Your task to perform on an android device: Open network settings Image 0: 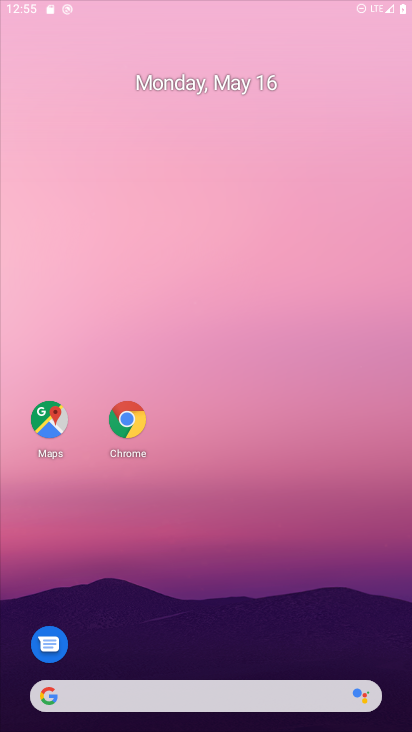
Step 0: click (221, 118)
Your task to perform on an android device: Open network settings Image 1: 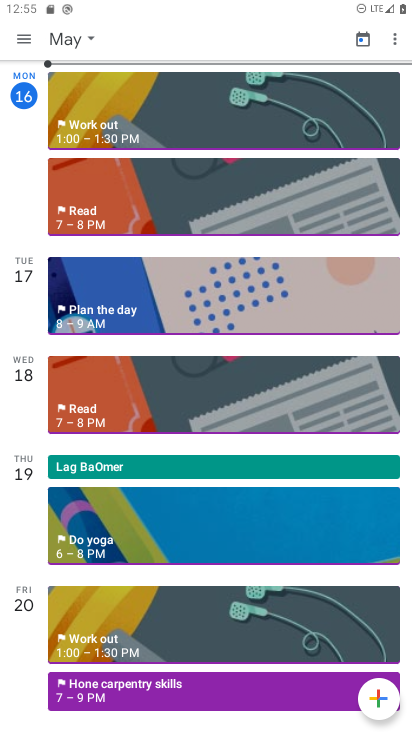
Step 1: press home button
Your task to perform on an android device: Open network settings Image 2: 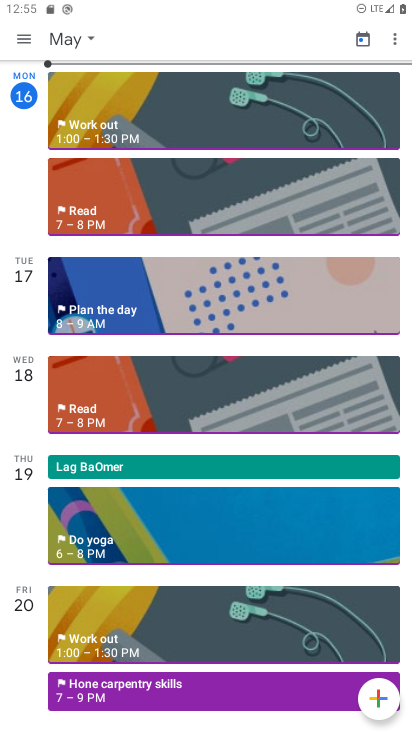
Step 2: drag from (255, 182) to (269, 33)
Your task to perform on an android device: Open network settings Image 3: 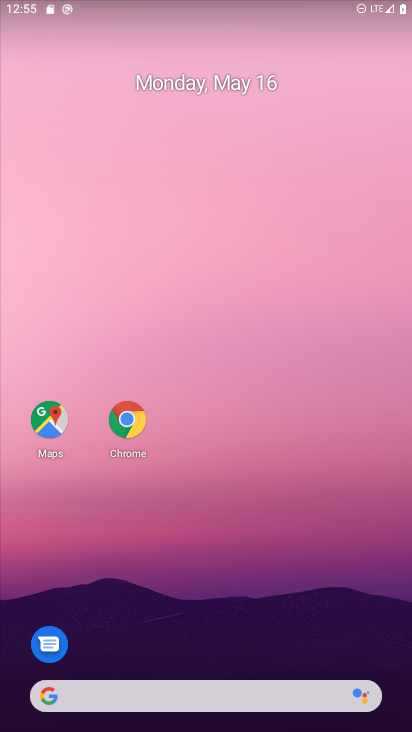
Step 3: drag from (211, 649) to (220, 66)
Your task to perform on an android device: Open network settings Image 4: 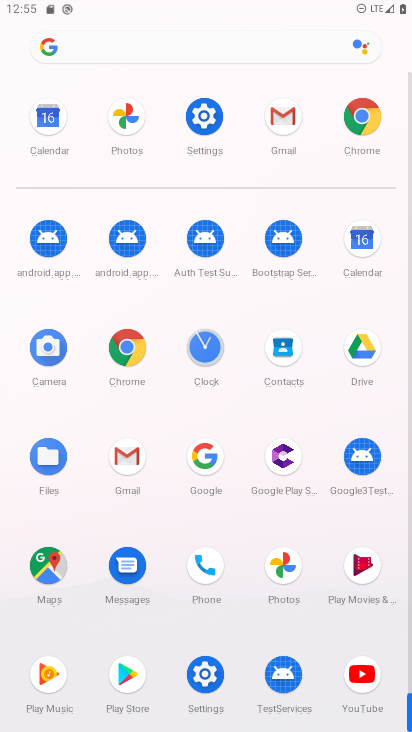
Step 4: click (210, 110)
Your task to perform on an android device: Open network settings Image 5: 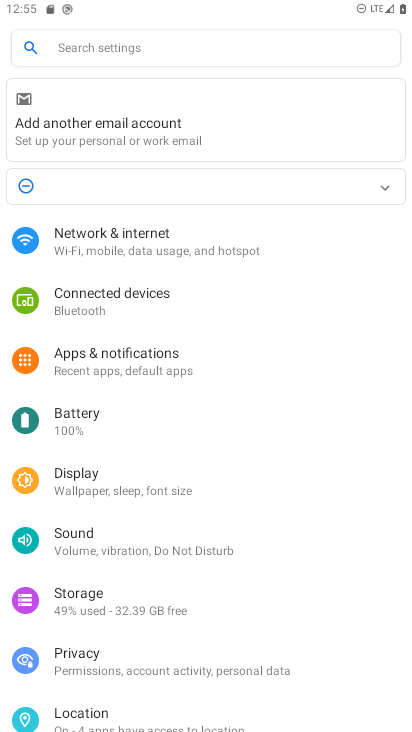
Step 5: click (156, 245)
Your task to perform on an android device: Open network settings Image 6: 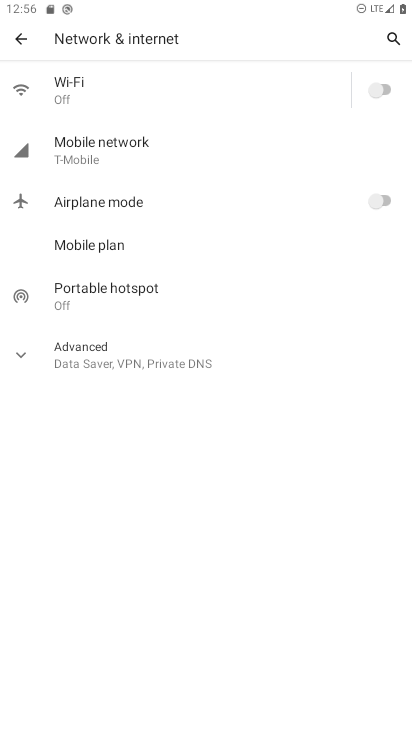
Step 6: task complete